Your task to perform on an android device: snooze an email in the gmail app Image 0: 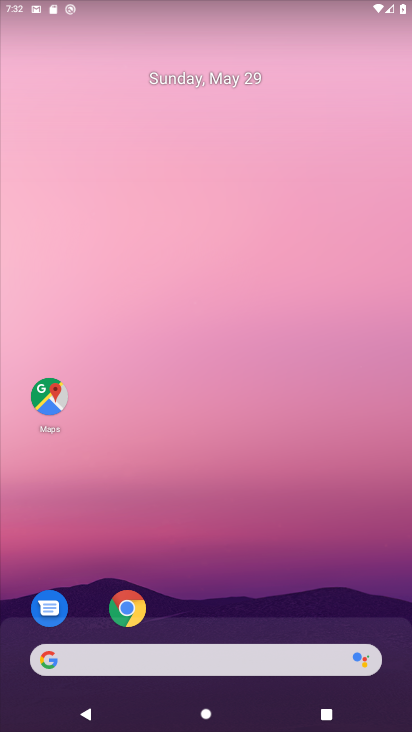
Step 0: drag from (246, 573) to (182, 75)
Your task to perform on an android device: snooze an email in the gmail app Image 1: 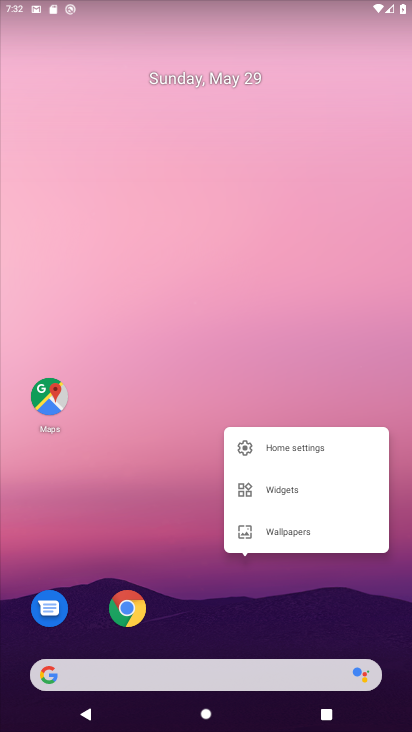
Step 1: click (168, 461)
Your task to perform on an android device: snooze an email in the gmail app Image 2: 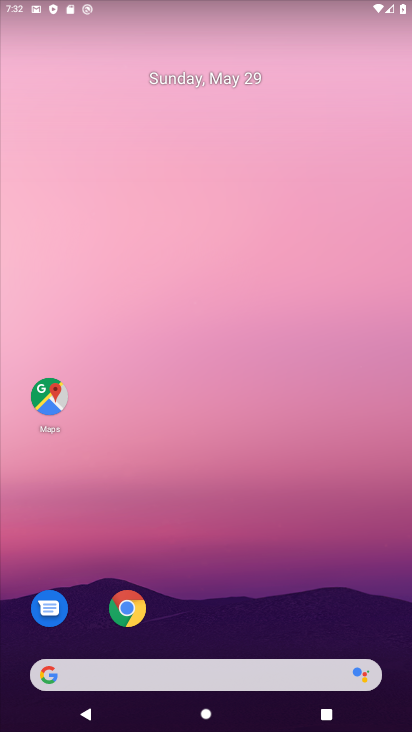
Step 2: click (189, 668)
Your task to perform on an android device: snooze an email in the gmail app Image 3: 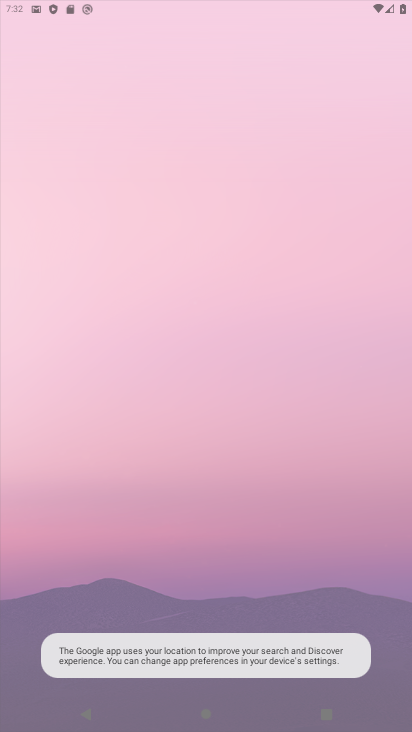
Step 3: drag from (216, 612) to (156, 141)
Your task to perform on an android device: snooze an email in the gmail app Image 4: 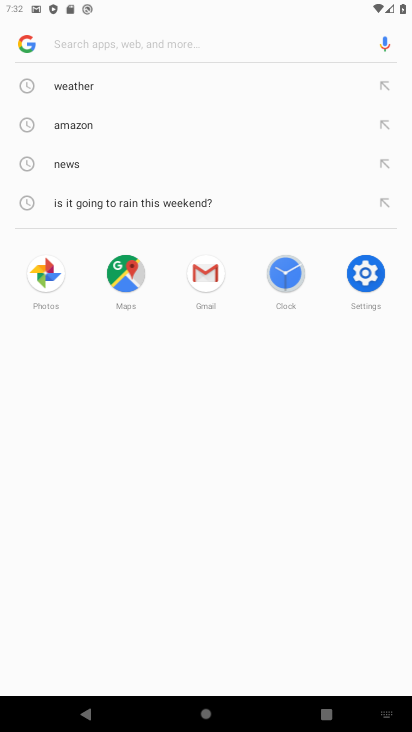
Step 4: press home button
Your task to perform on an android device: snooze an email in the gmail app Image 5: 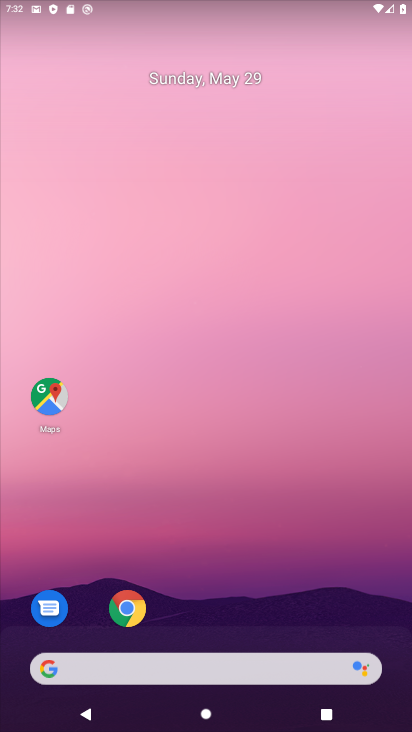
Step 5: drag from (198, 552) to (155, 129)
Your task to perform on an android device: snooze an email in the gmail app Image 6: 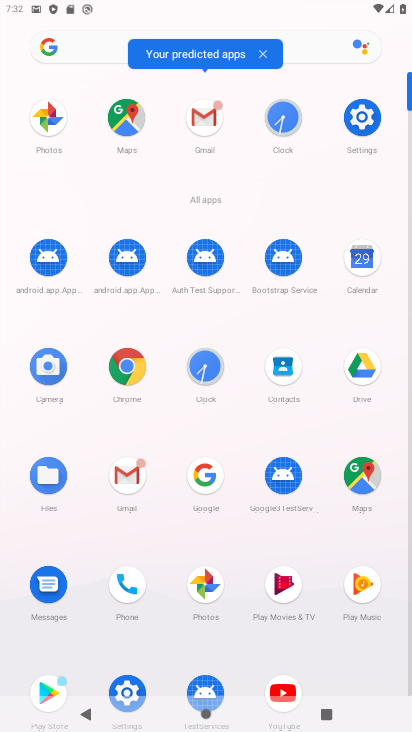
Step 6: click (207, 117)
Your task to perform on an android device: snooze an email in the gmail app Image 7: 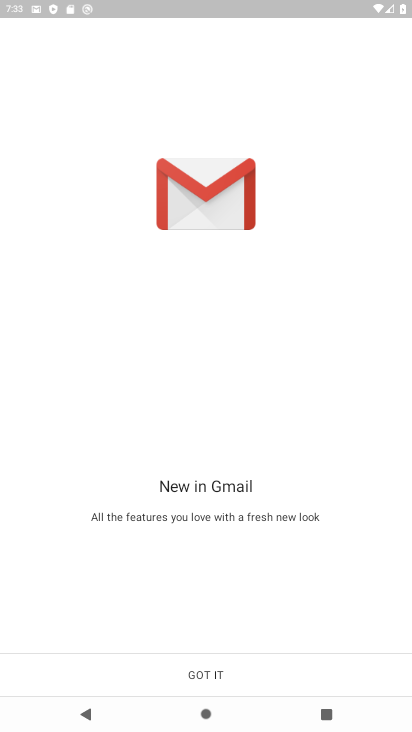
Step 7: click (201, 672)
Your task to perform on an android device: snooze an email in the gmail app Image 8: 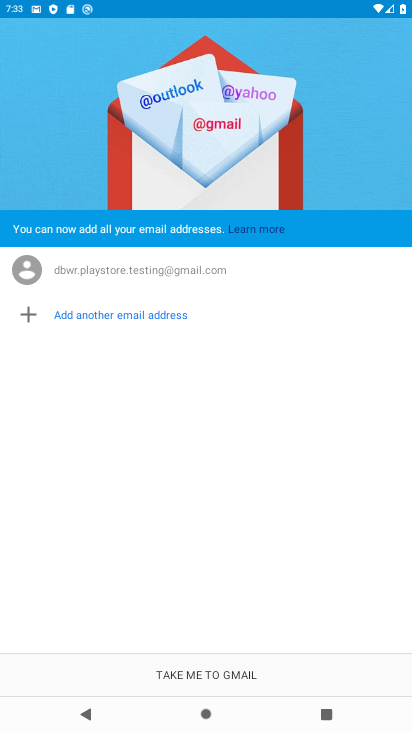
Step 8: click (201, 672)
Your task to perform on an android device: snooze an email in the gmail app Image 9: 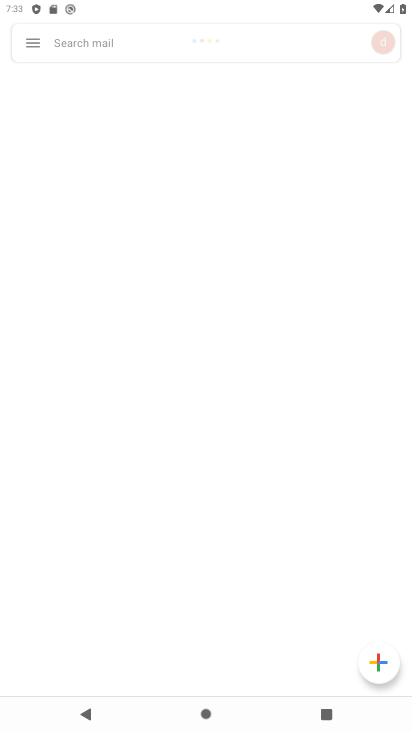
Step 9: click (101, 158)
Your task to perform on an android device: snooze an email in the gmail app Image 10: 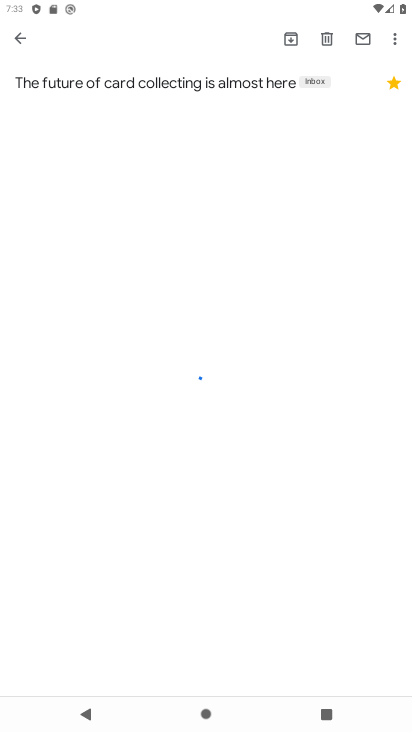
Step 10: click (393, 32)
Your task to perform on an android device: snooze an email in the gmail app Image 11: 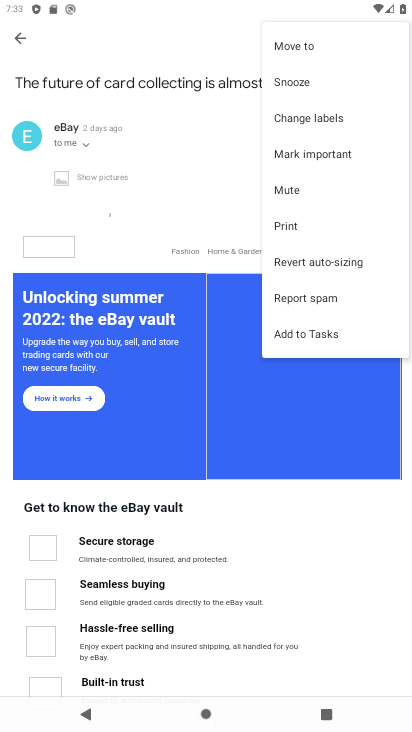
Step 11: click (297, 78)
Your task to perform on an android device: snooze an email in the gmail app Image 12: 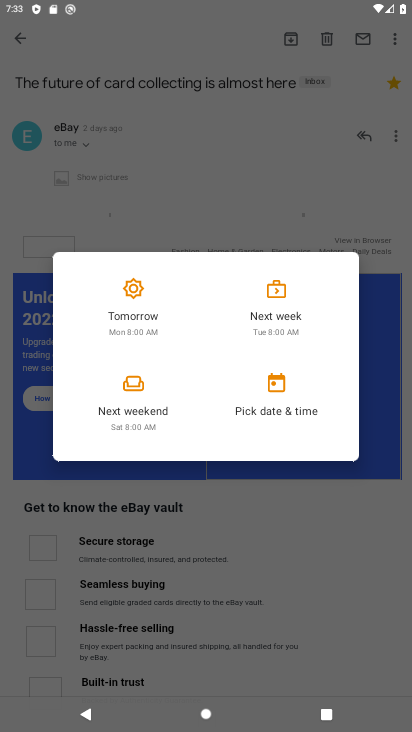
Step 12: click (132, 296)
Your task to perform on an android device: snooze an email in the gmail app Image 13: 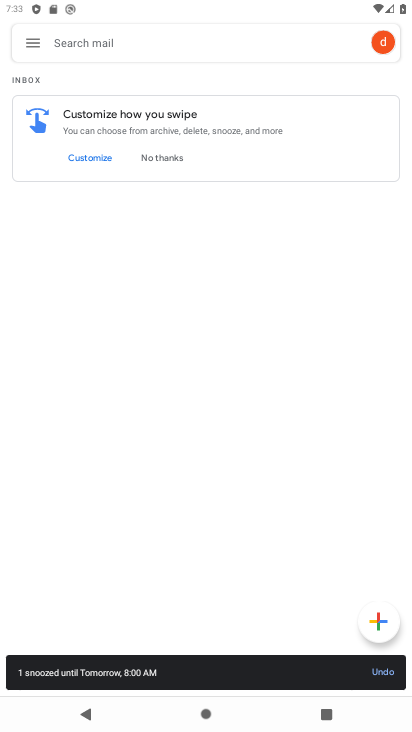
Step 13: task complete